Your task to perform on an android device: Search for seafood restaurants on Google Maps Image 0: 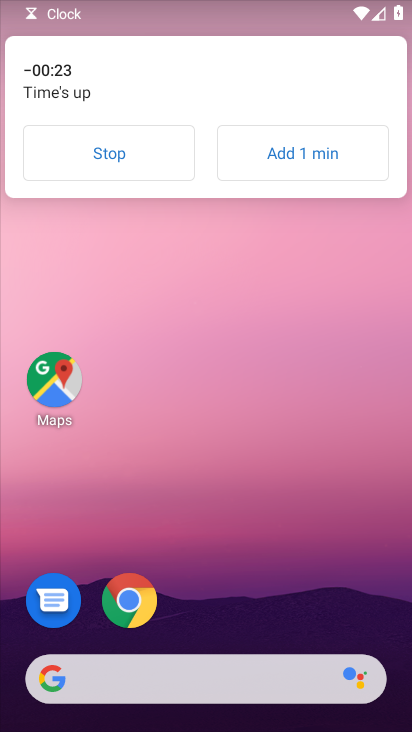
Step 0: click (155, 170)
Your task to perform on an android device: Search for seafood restaurants on Google Maps Image 1: 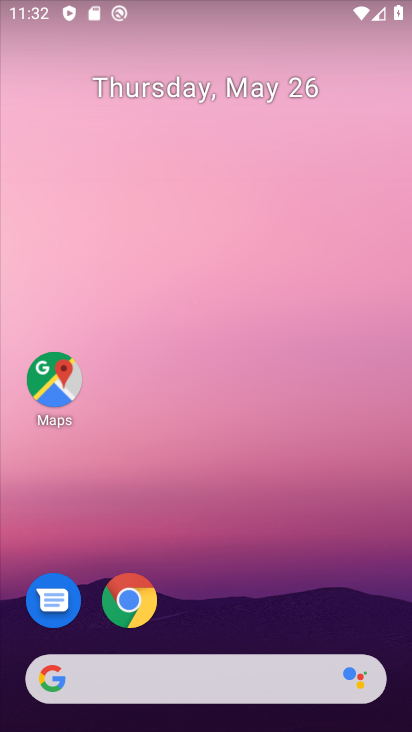
Step 1: click (43, 384)
Your task to perform on an android device: Search for seafood restaurants on Google Maps Image 2: 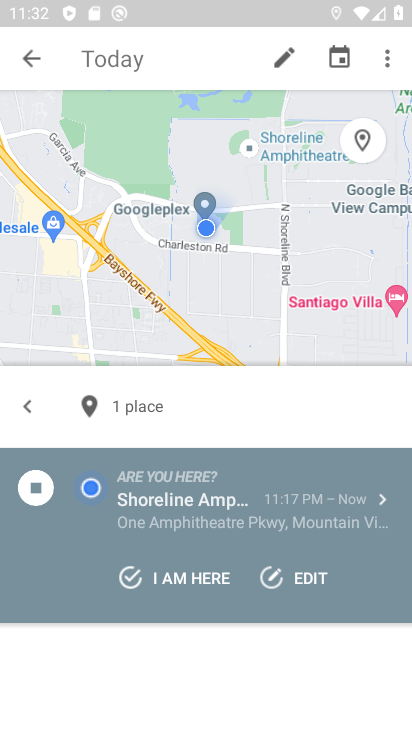
Step 2: click (22, 69)
Your task to perform on an android device: Search for seafood restaurants on Google Maps Image 3: 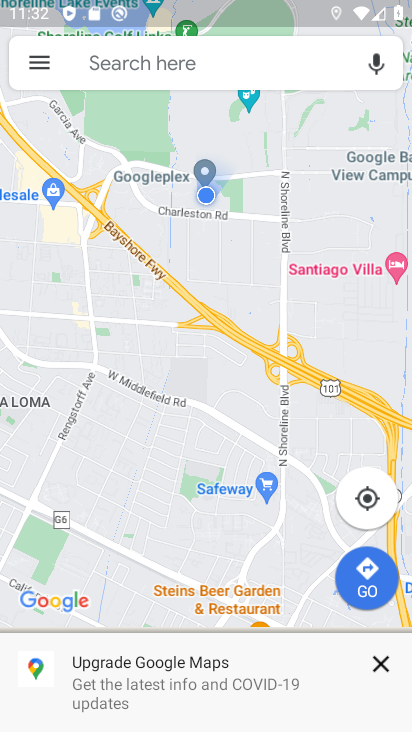
Step 3: click (140, 71)
Your task to perform on an android device: Search for seafood restaurants on Google Maps Image 4: 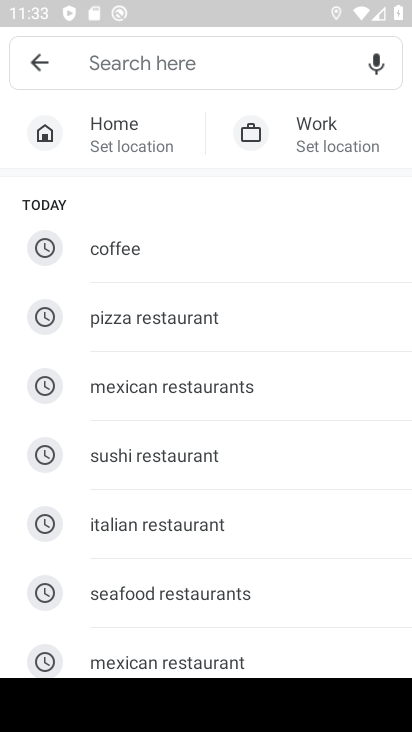
Step 4: drag from (89, 604) to (142, 144)
Your task to perform on an android device: Search for seafood restaurants on Google Maps Image 5: 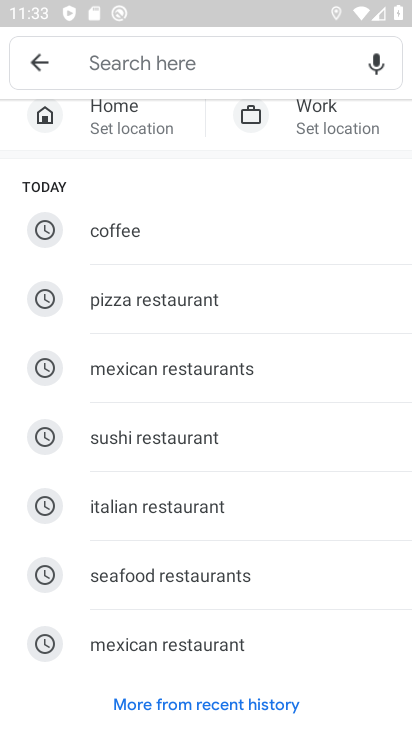
Step 5: click (174, 599)
Your task to perform on an android device: Search for seafood restaurants on Google Maps Image 6: 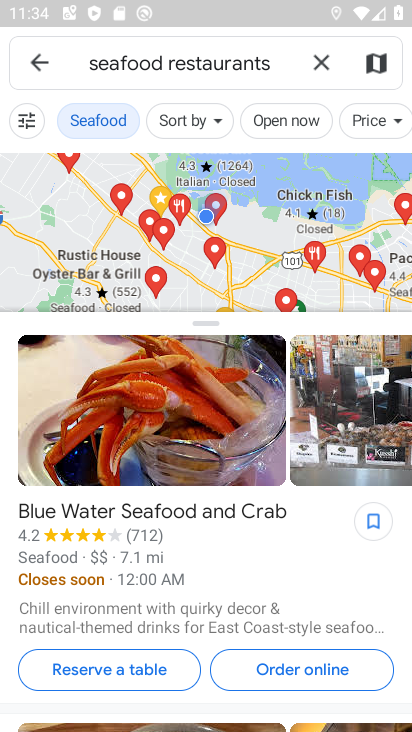
Step 6: task complete